Your task to perform on an android device: Open Reddit.com Image 0: 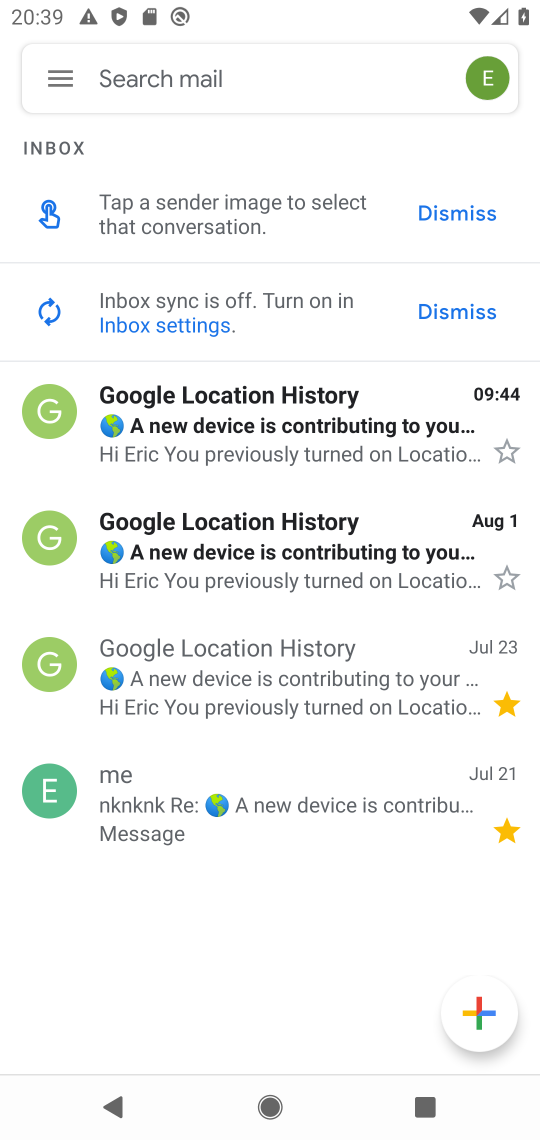
Step 0: press home button
Your task to perform on an android device: Open Reddit.com Image 1: 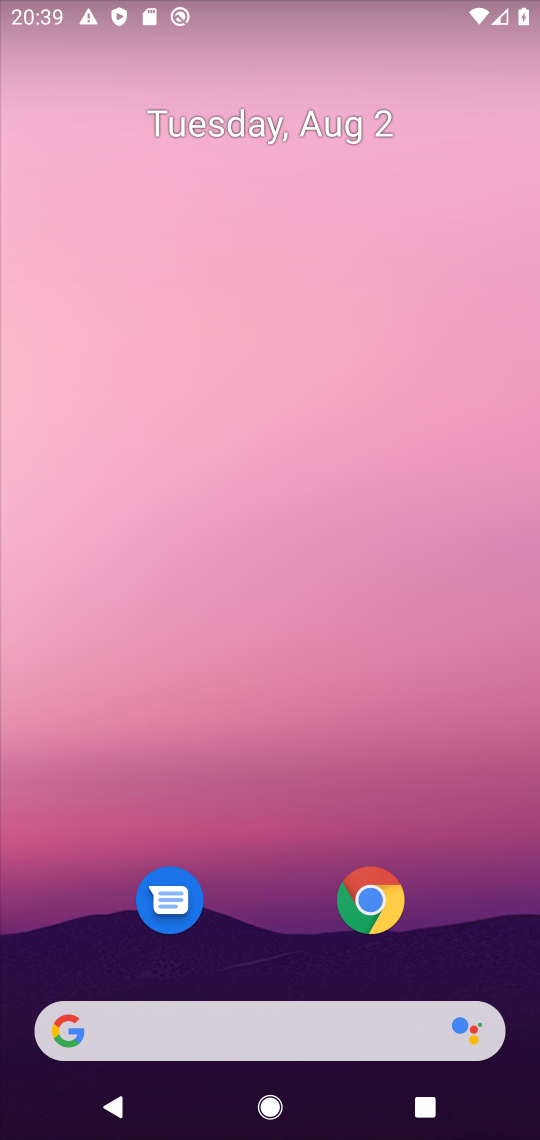
Step 1: drag from (277, 896) to (313, 181)
Your task to perform on an android device: Open Reddit.com Image 2: 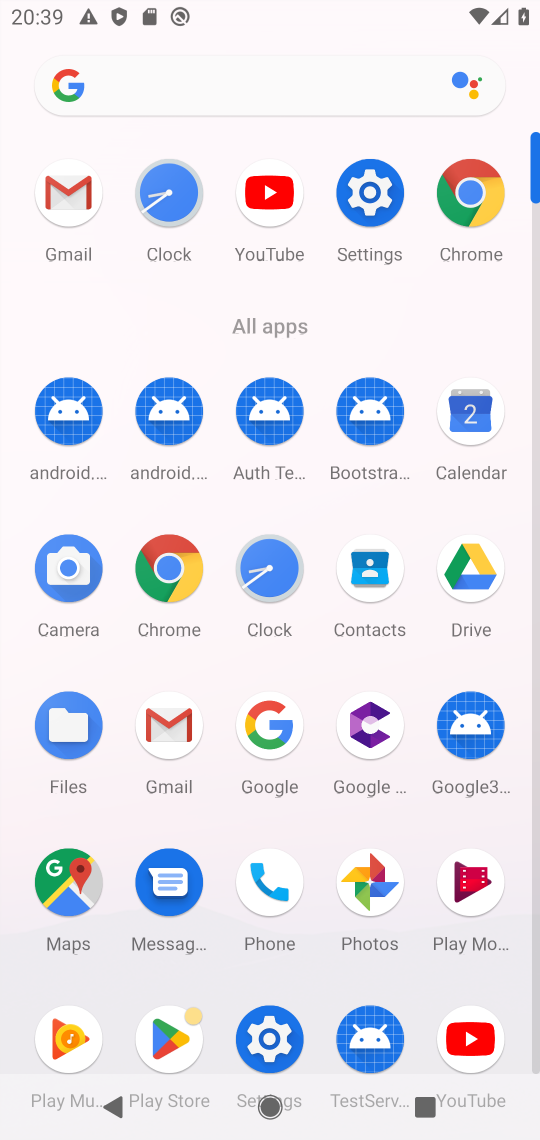
Step 2: click (301, 85)
Your task to perform on an android device: Open Reddit.com Image 3: 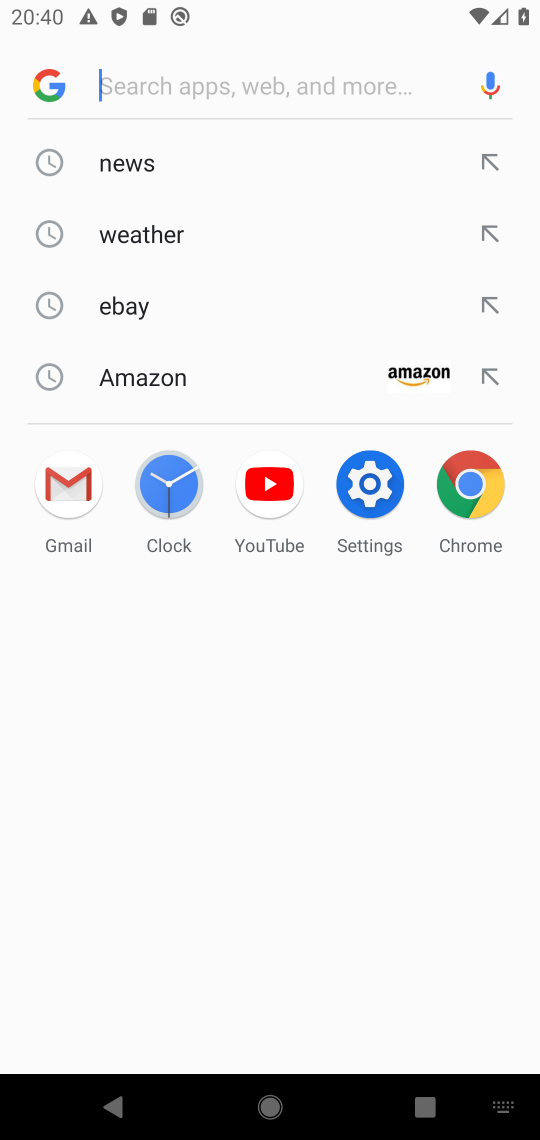
Step 3: type "reddit.com"
Your task to perform on an android device: Open Reddit.com Image 4: 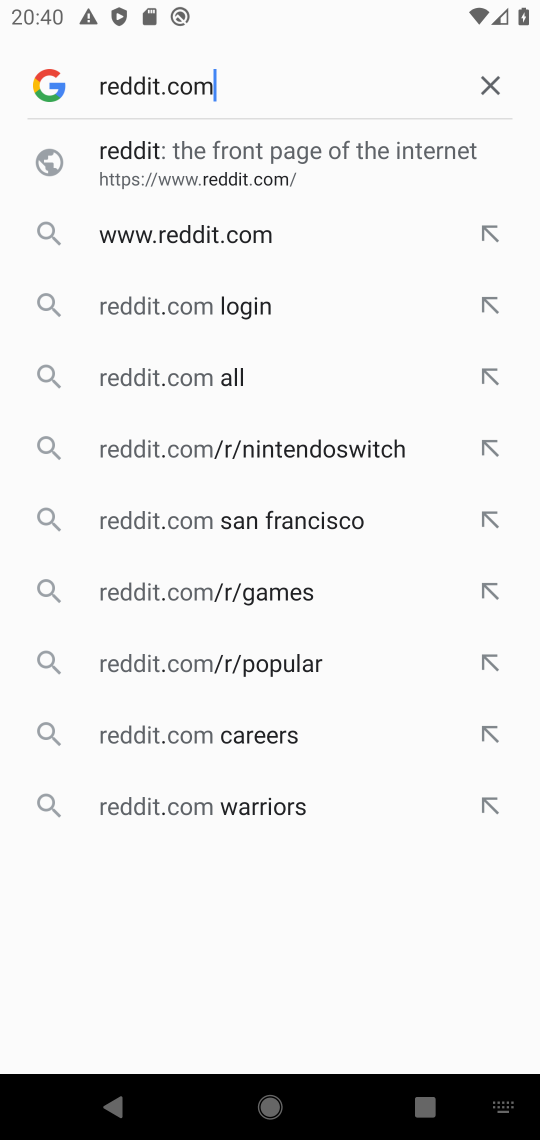
Step 4: click (247, 176)
Your task to perform on an android device: Open Reddit.com Image 5: 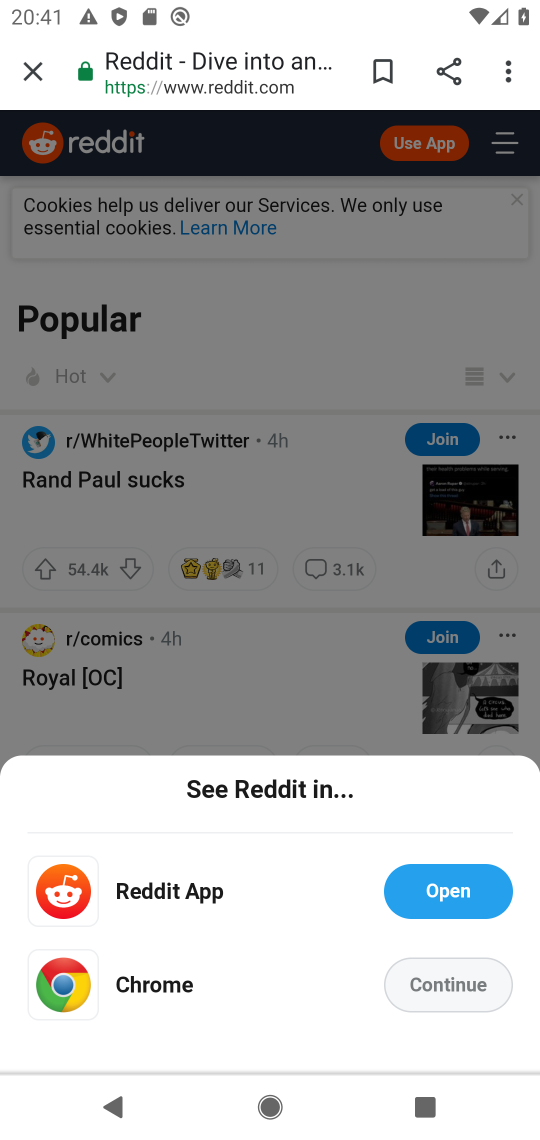
Step 5: click (439, 980)
Your task to perform on an android device: Open Reddit.com Image 6: 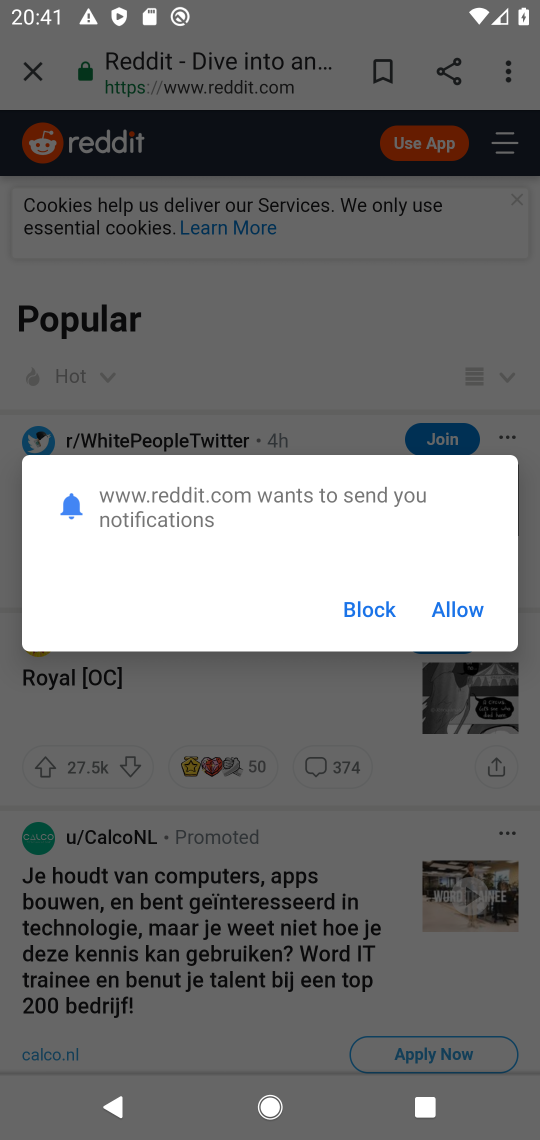
Step 6: click (374, 608)
Your task to perform on an android device: Open Reddit.com Image 7: 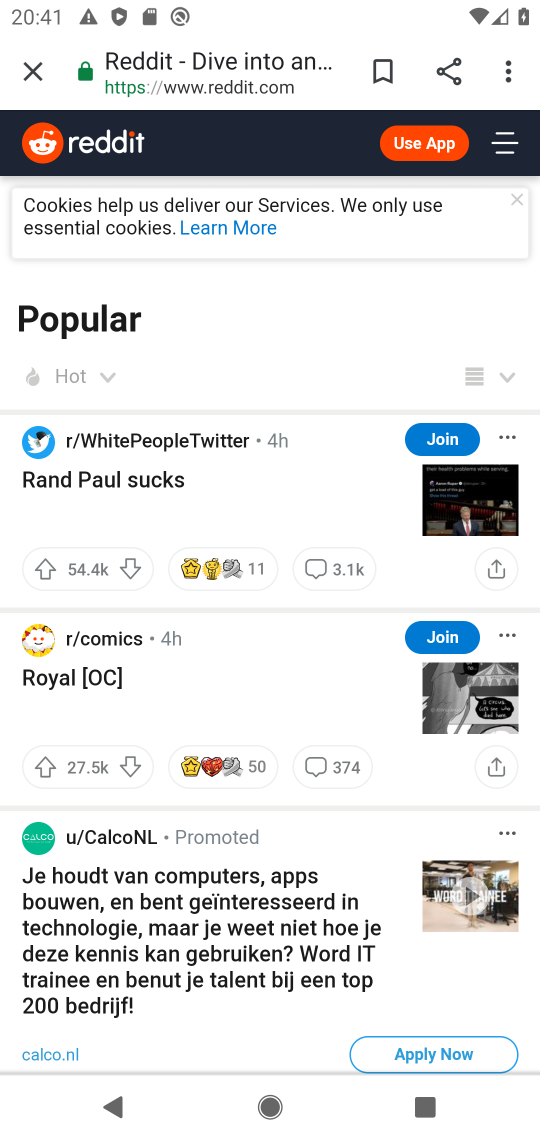
Step 7: task complete